Your task to perform on an android device: Go to location settings Image 0: 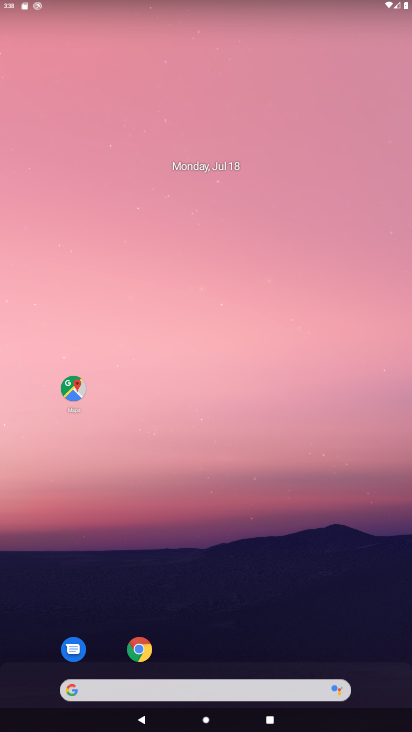
Step 0: drag from (352, 607) to (261, 33)
Your task to perform on an android device: Go to location settings Image 1: 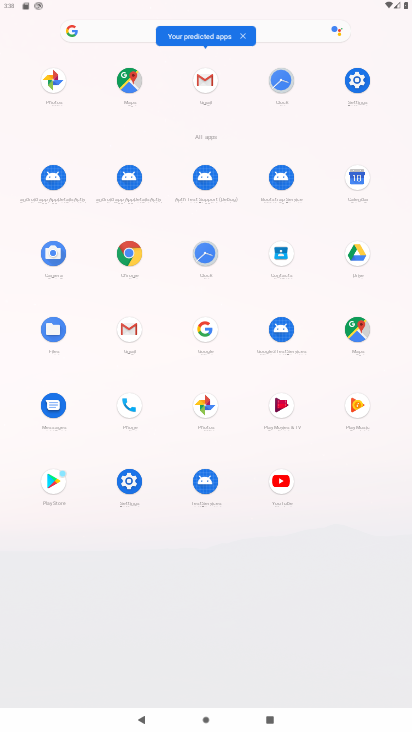
Step 1: click (356, 92)
Your task to perform on an android device: Go to location settings Image 2: 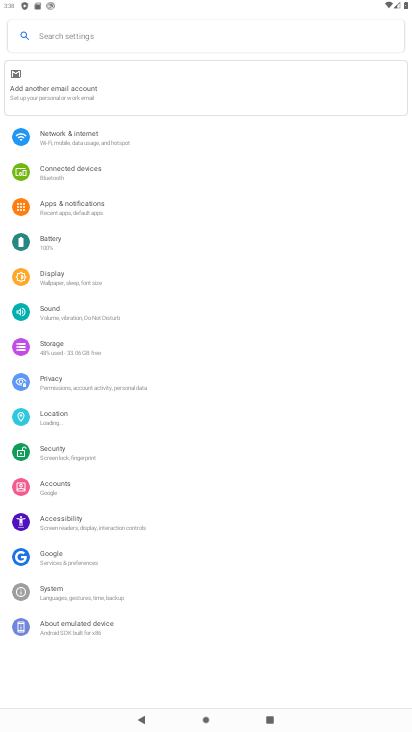
Step 2: click (100, 417)
Your task to perform on an android device: Go to location settings Image 3: 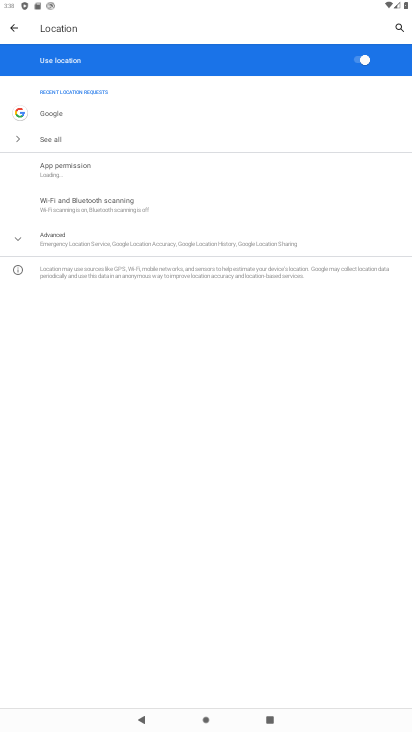
Step 3: task complete